Your task to perform on an android device: Open Google Maps and go to "Timeline" Image 0: 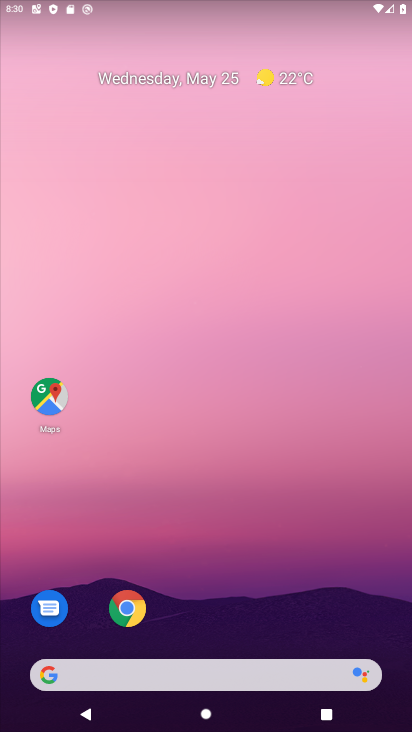
Step 0: click (49, 397)
Your task to perform on an android device: Open Google Maps and go to "Timeline" Image 1: 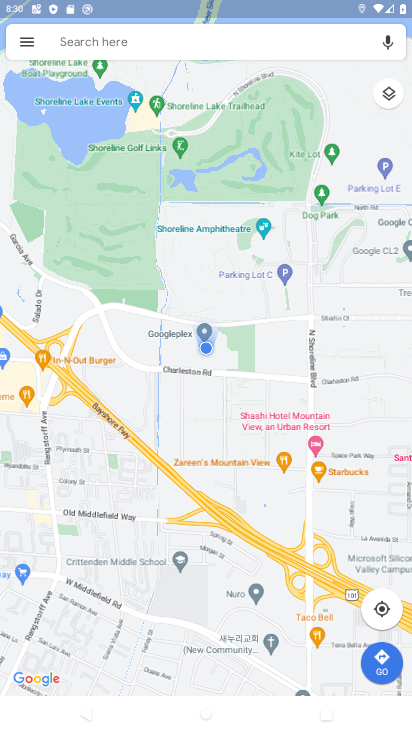
Step 1: click (27, 43)
Your task to perform on an android device: Open Google Maps and go to "Timeline" Image 2: 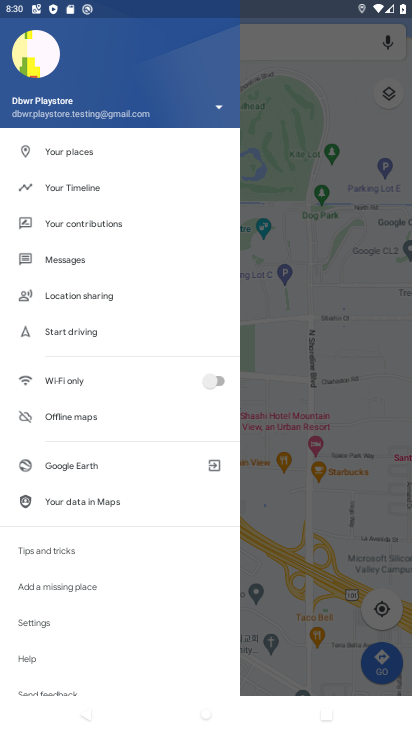
Step 2: click (71, 186)
Your task to perform on an android device: Open Google Maps and go to "Timeline" Image 3: 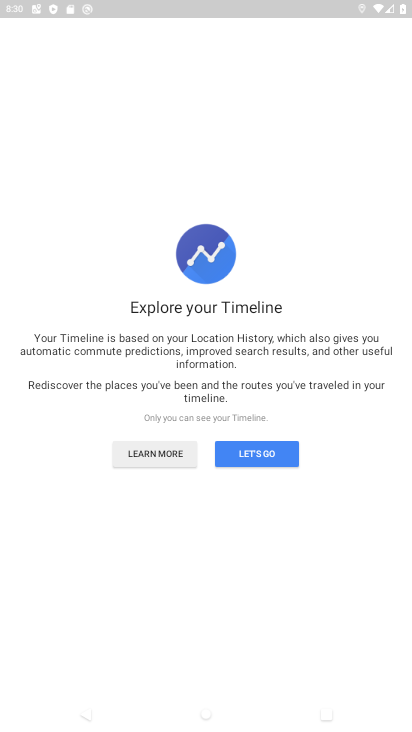
Step 3: click (255, 456)
Your task to perform on an android device: Open Google Maps and go to "Timeline" Image 4: 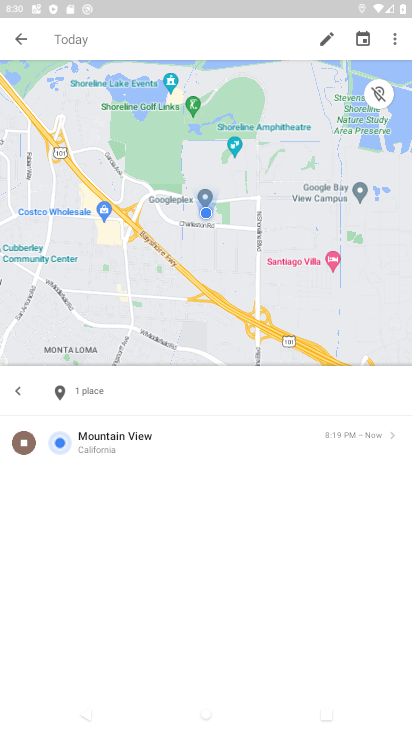
Step 4: task complete